Your task to perform on an android device: Toggle the flashlight Image 0: 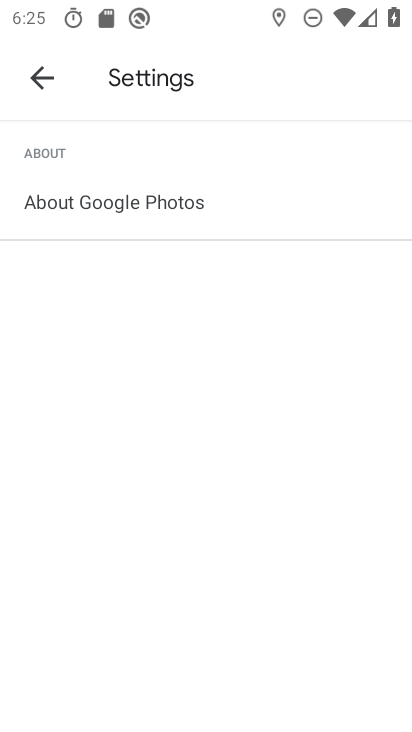
Step 0: press back button
Your task to perform on an android device: Toggle the flashlight Image 1: 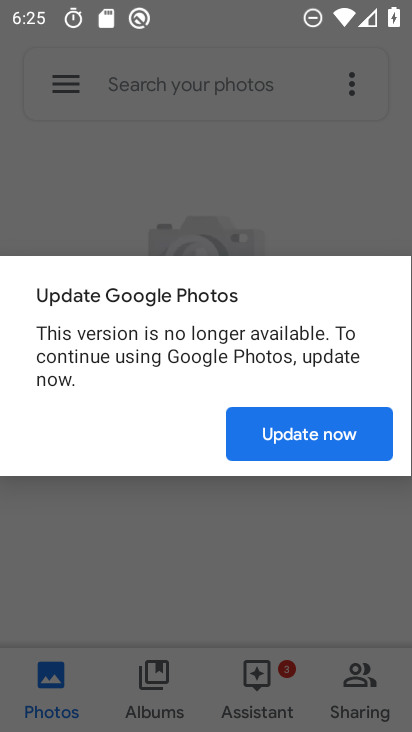
Step 1: press home button
Your task to perform on an android device: Toggle the flashlight Image 2: 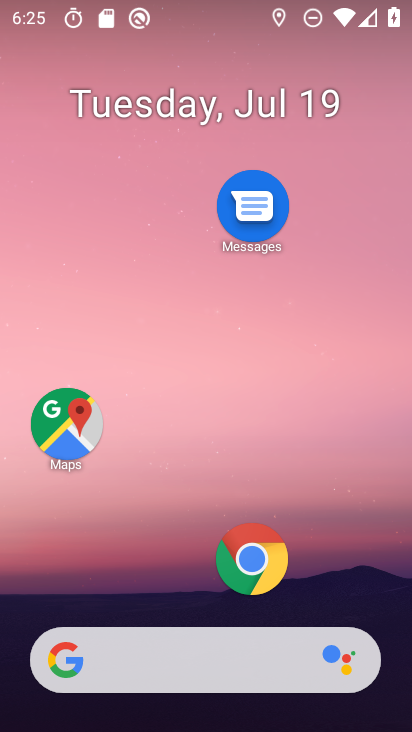
Step 2: drag from (181, 547) to (243, 56)
Your task to perform on an android device: Toggle the flashlight Image 3: 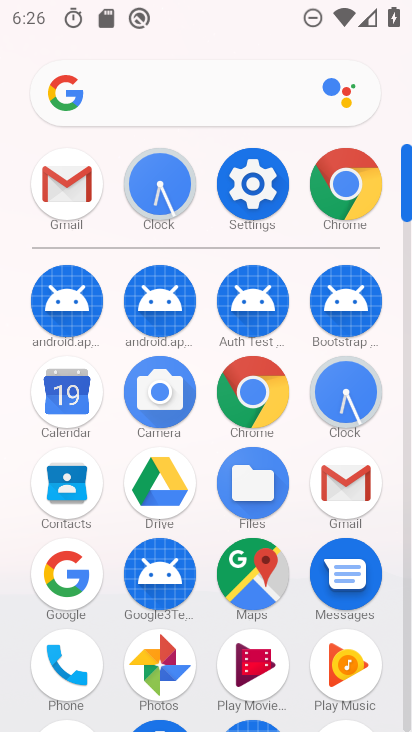
Step 3: click (265, 167)
Your task to perform on an android device: Toggle the flashlight Image 4: 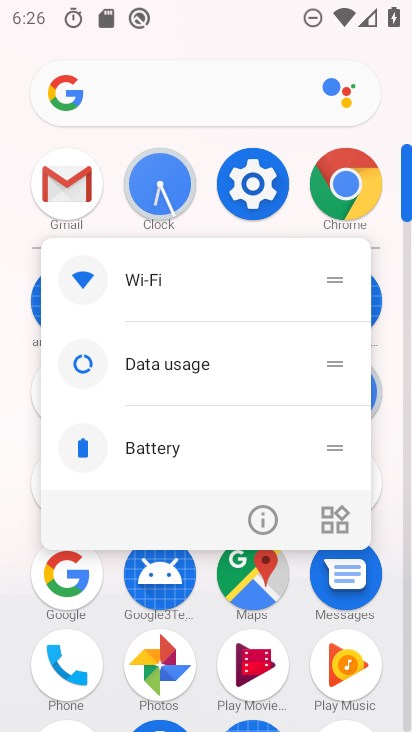
Step 4: click (241, 186)
Your task to perform on an android device: Toggle the flashlight Image 5: 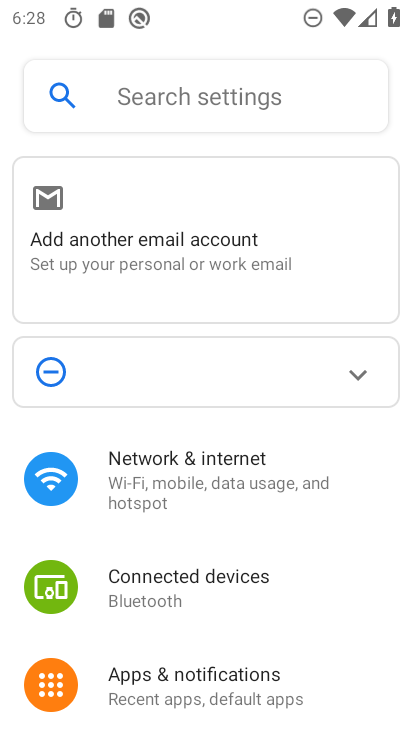
Step 5: click (192, 93)
Your task to perform on an android device: Toggle the flashlight Image 6: 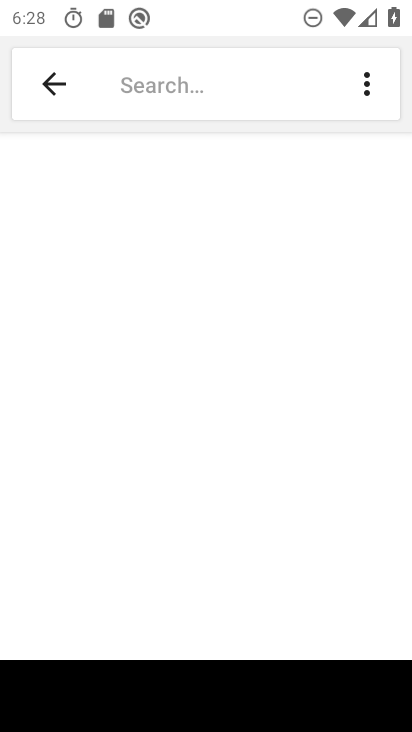
Step 6: click (193, 95)
Your task to perform on an android device: Toggle the flashlight Image 7: 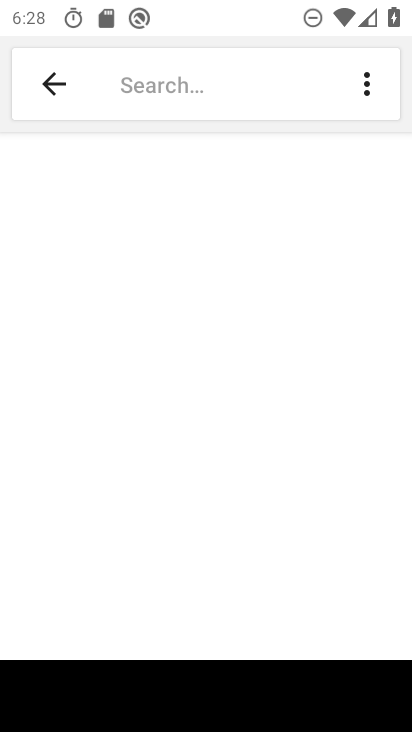
Step 7: type "flashlight"
Your task to perform on an android device: Toggle the flashlight Image 8: 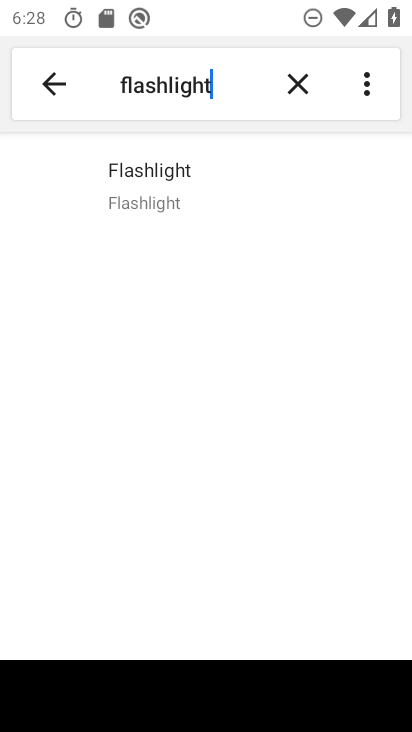
Step 8: click (196, 182)
Your task to perform on an android device: Toggle the flashlight Image 9: 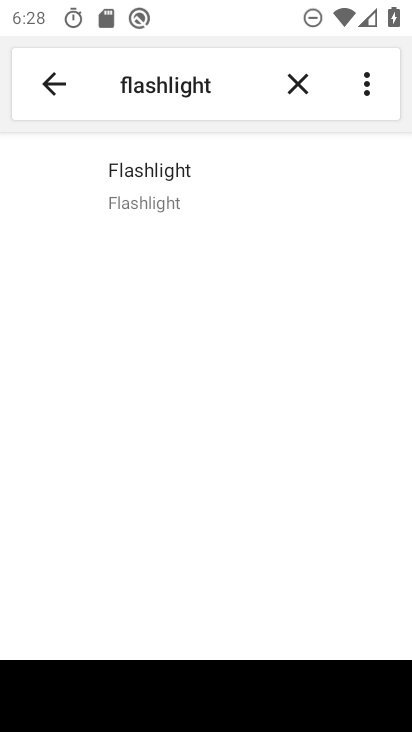
Step 9: task complete